Your task to perform on an android device: Open Google Chrome and click the shortcut for Amazon.com Image 0: 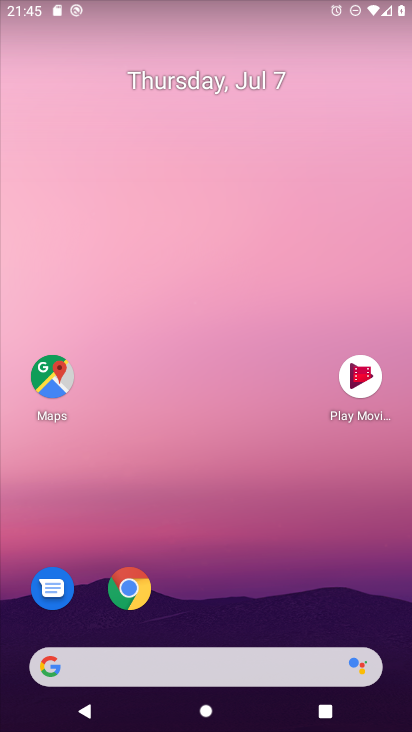
Step 0: drag from (164, 624) to (181, 261)
Your task to perform on an android device: Open Google Chrome and click the shortcut for Amazon.com Image 1: 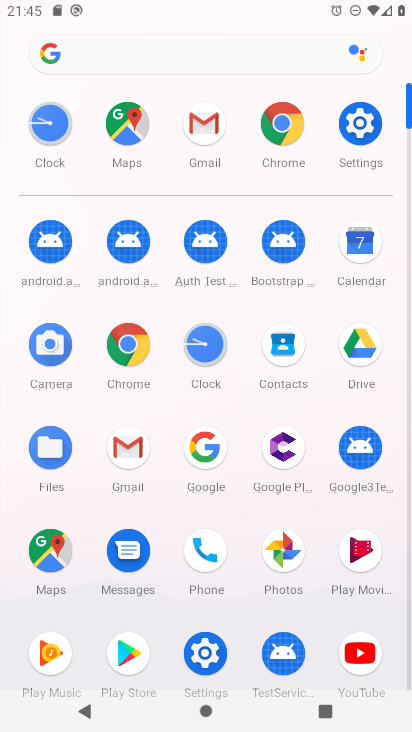
Step 1: click (274, 124)
Your task to perform on an android device: Open Google Chrome and click the shortcut for Amazon.com Image 2: 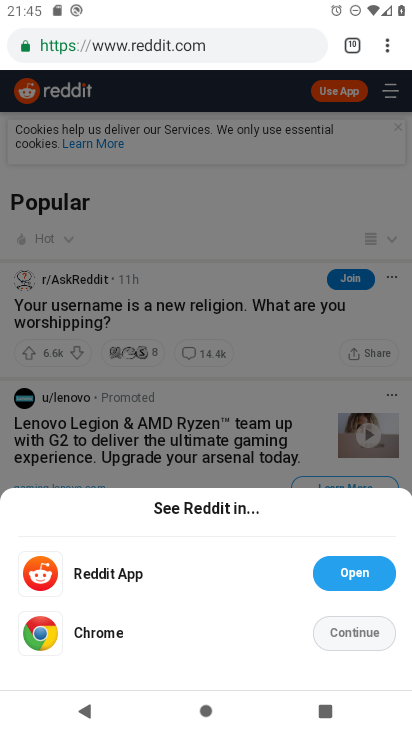
Step 2: click (388, 40)
Your task to perform on an android device: Open Google Chrome and click the shortcut for Amazon.com Image 3: 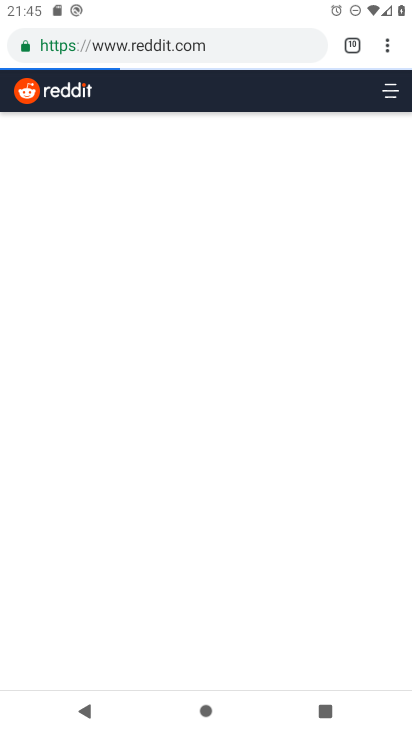
Step 3: click (388, 40)
Your task to perform on an android device: Open Google Chrome and click the shortcut for Amazon.com Image 4: 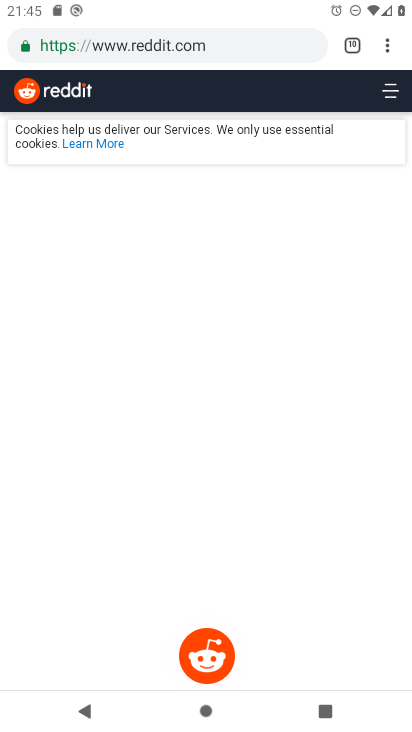
Step 4: click (391, 50)
Your task to perform on an android device: Open Google Chrome and click the shortcut for Amazon.com Image 5: 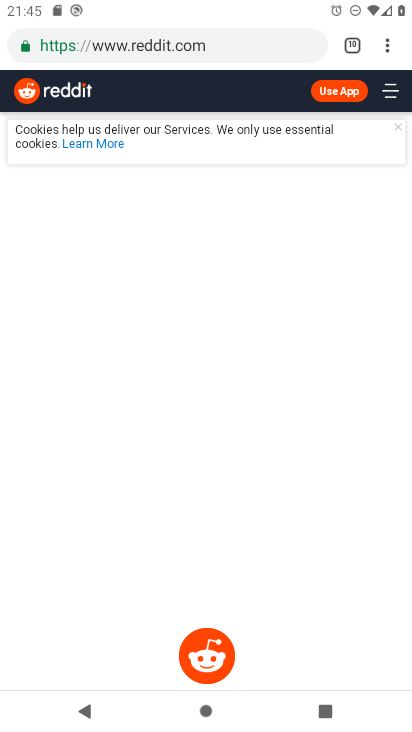
Step 5: click (377, 38)
Your task to perform on an android device: Open Google Chrome and click the shortcut for Amazon.com Image 6: 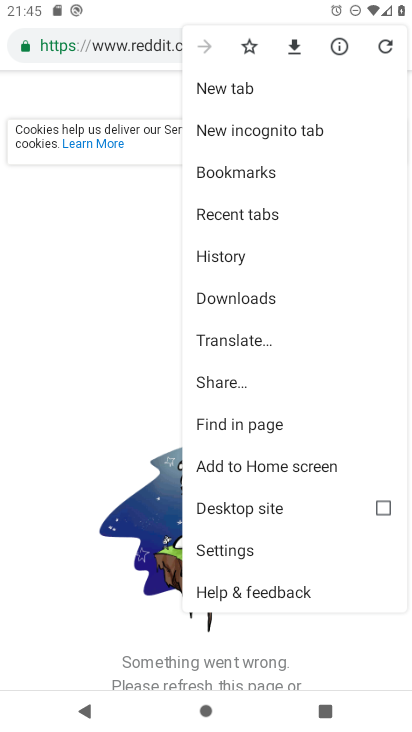
Step 6: click (261, 95)
Your task to perform on an android device: Open Google Chrome and click the shortcut for Amazon.com Image 7: 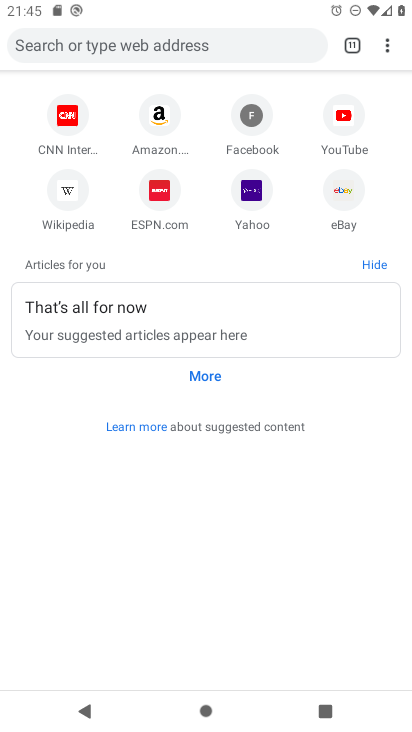
Step 7: click (170, 113)
Your task to perform on an android device: Open Google Chrome and click the shortcut for Amazon.com Image 8: 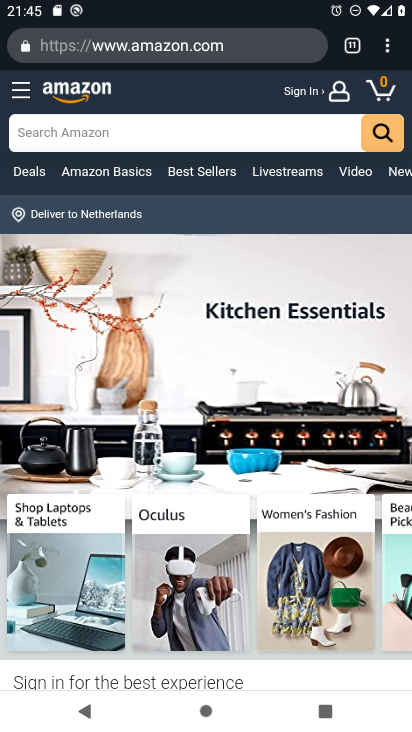
Step 8: task complete